Your task to perform on an android device: Open sound settings Image 0: 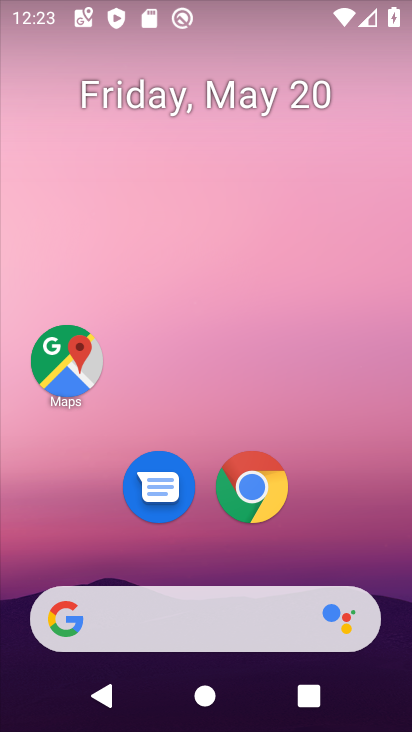
Step 0: drag from (194, 572) to (317, 24)
Your task to perform on an android device: Open sound settings Image 1: 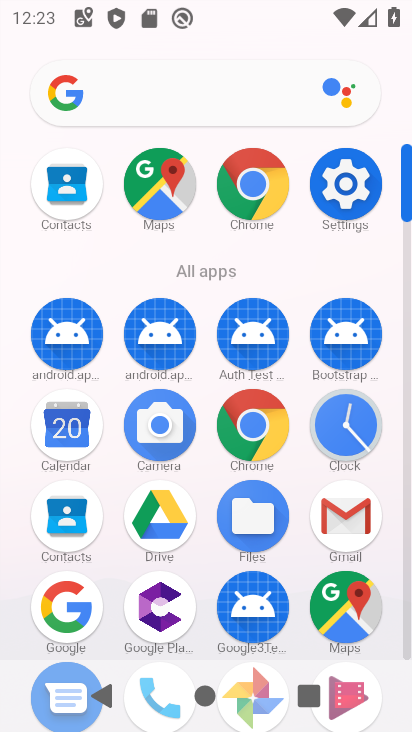
Step 1: click (353, 194)
Your task to perform on an android device: Open sound settings Image 2: 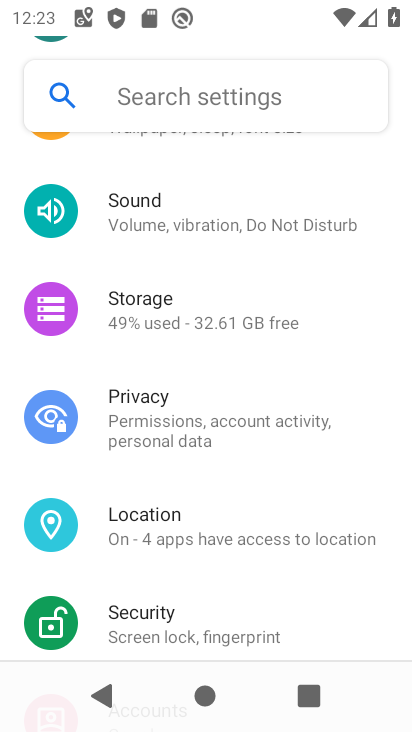
Step 2: click (127, 198)
Your task to perform on an android device: Open sound settings Image 3: 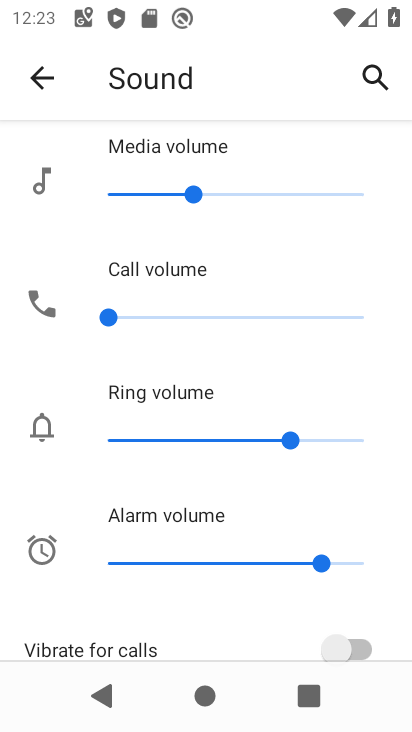
Step 3: task complete